Your task to perform on an android device: Search for Mexican restaurants on Maps Image 0: 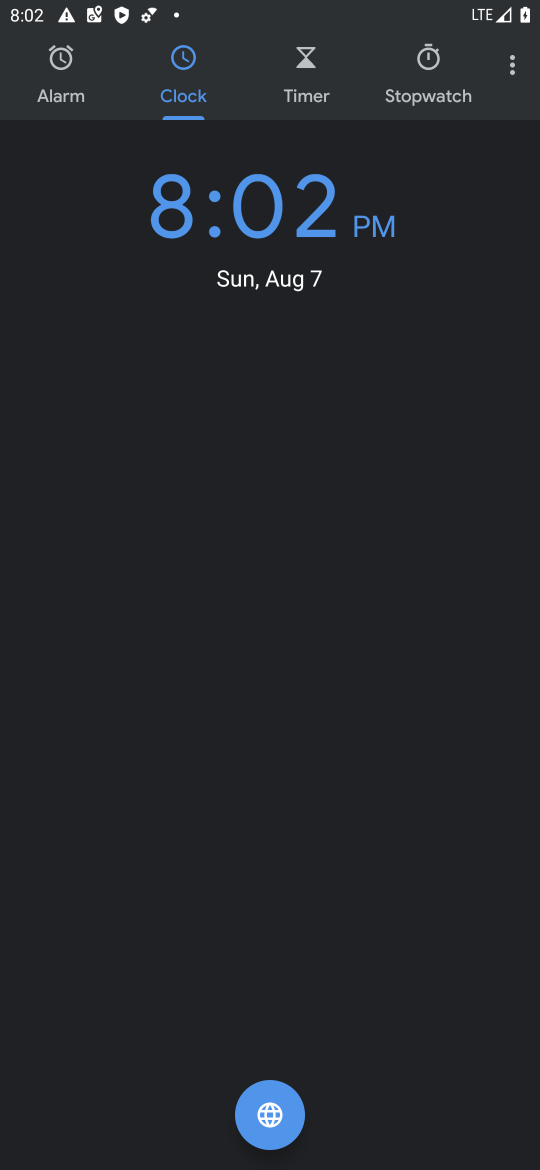
Step 0: press home button
Your task to perform on an android device: Search for Mexican restaurants on Maps Image 1: 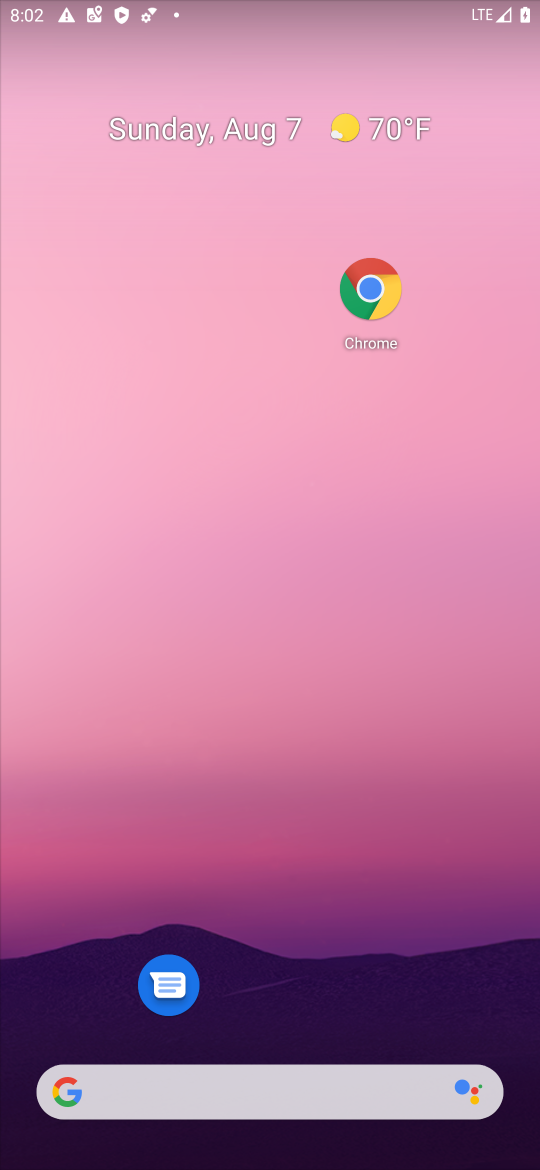
Step 1: drag from (181, 974) to (340, 227)
Your task to perform on an android device: Search for Mexican restaurants on Maps Image 2: 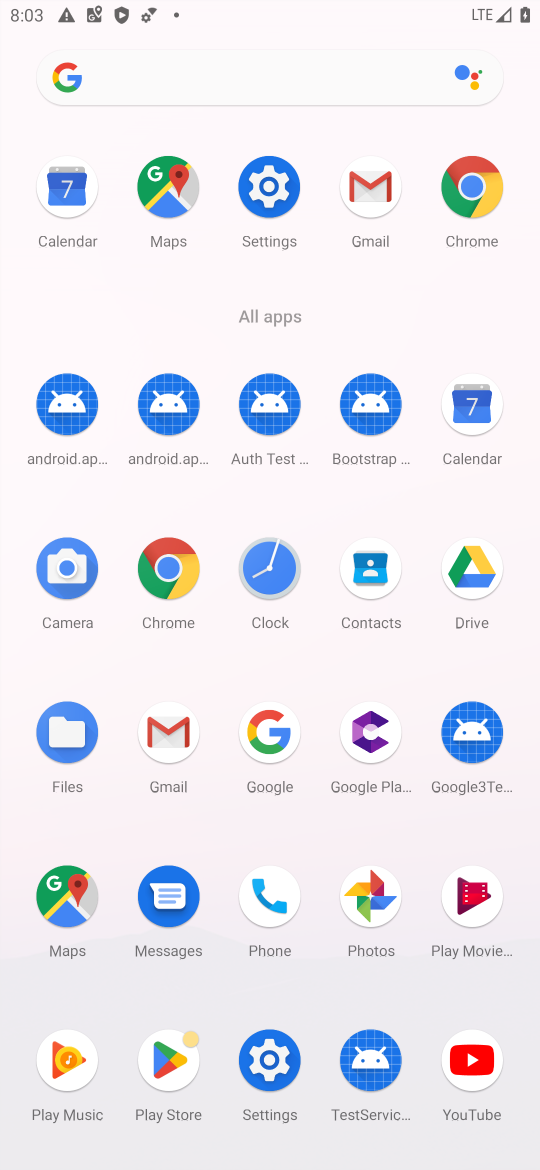
Step 2: click (168, 180)
Your task to perform on an android device: Search for Mexican restaurants on Maps Image 3: 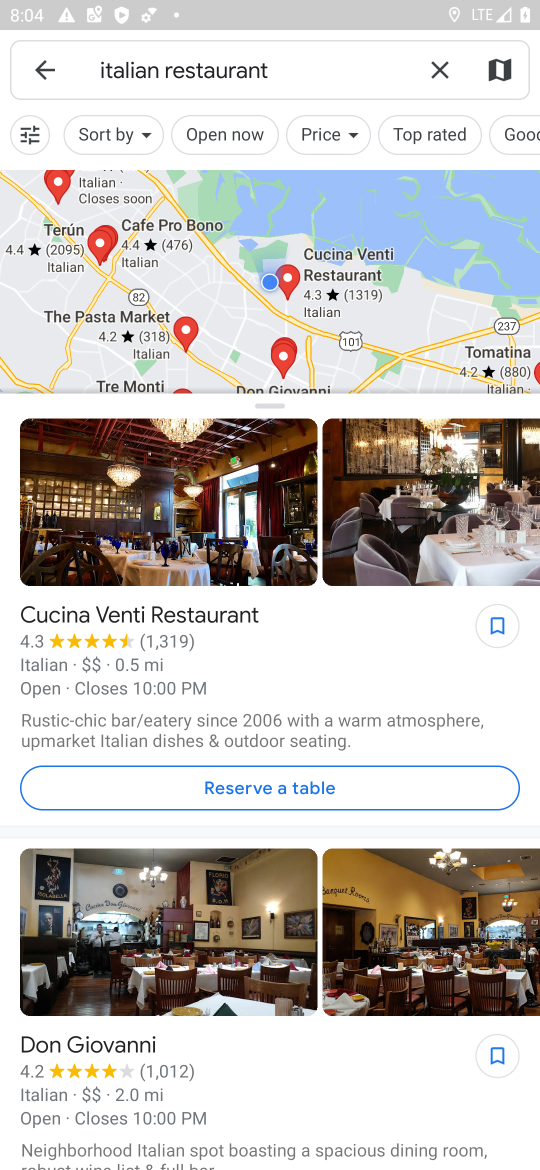
Step 3: click (459, 58)
Your task to perform on an android device: Search for Mexican restaurants on Maps Image 4: 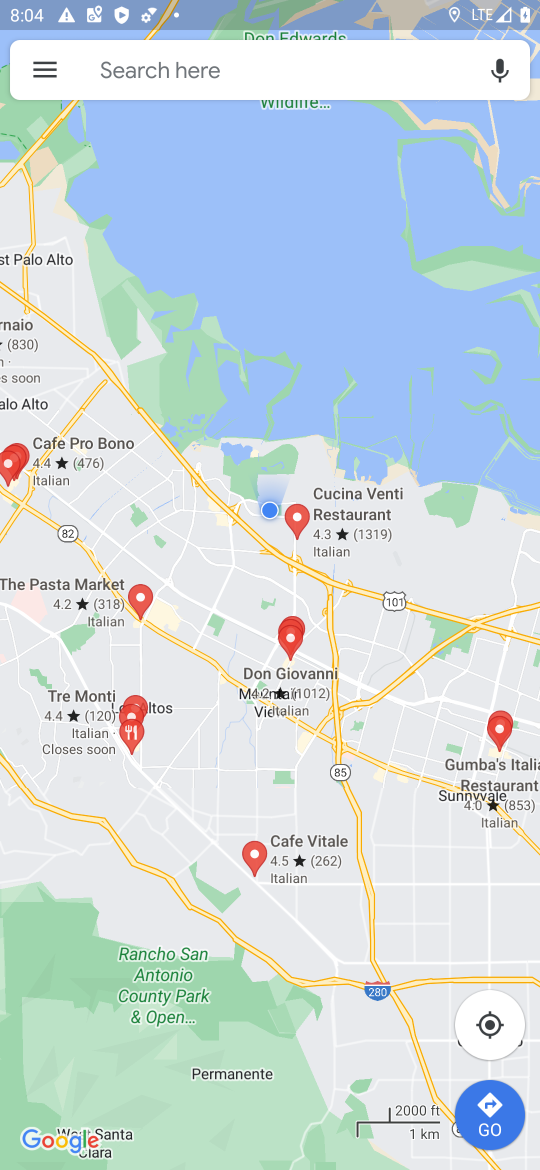
Step 4: click (357, 70)
Your task to perform on an android device: Search for Mexican restaurants on Maps Image 5: 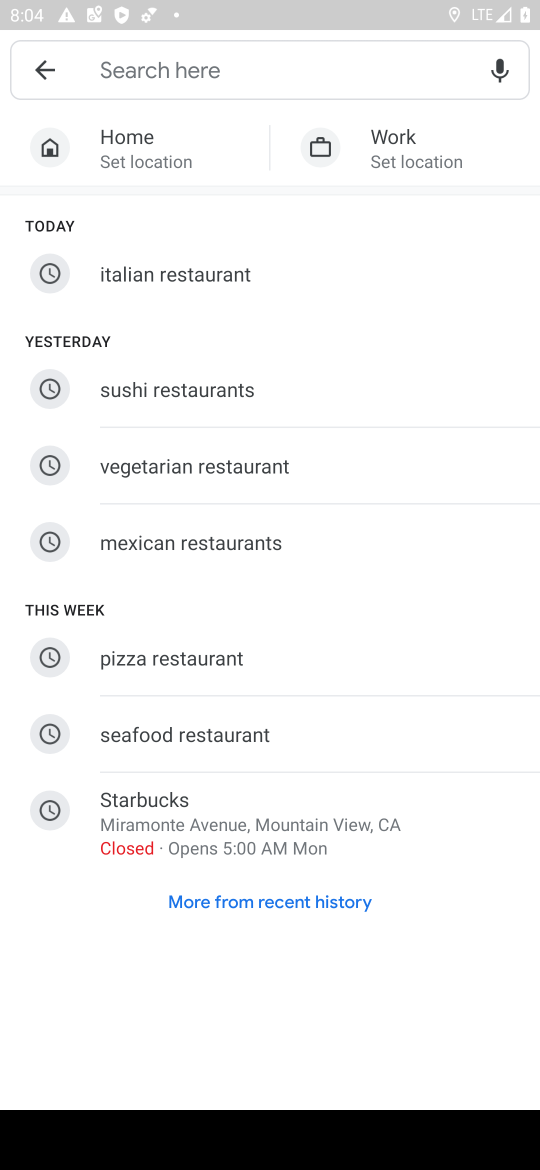
Step 5: click (228, 523)
Your task to perform on an android device: Search for Mexican restaurants on Maps Image 6: 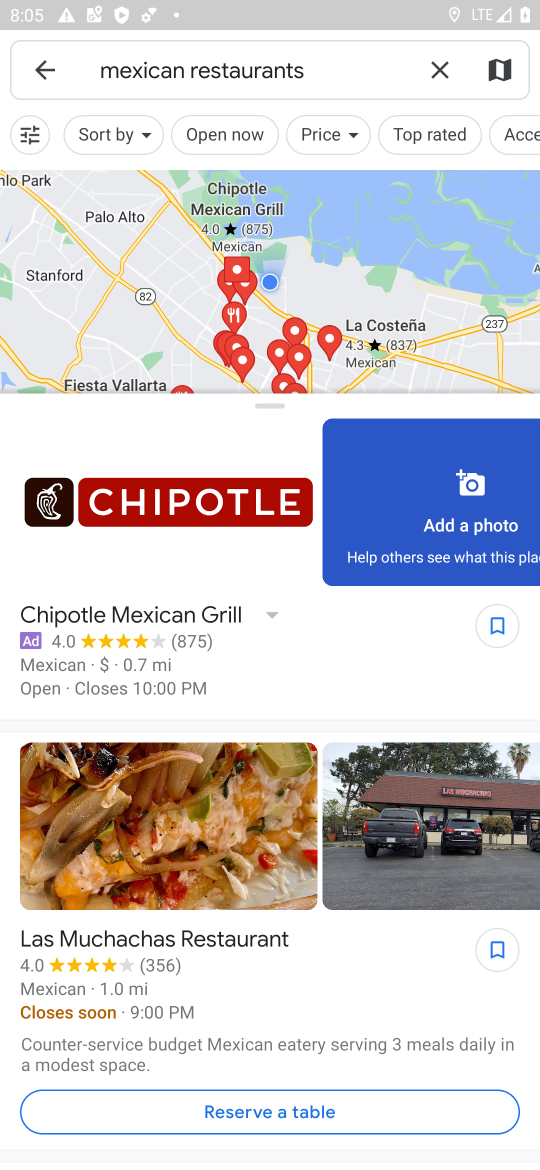
Step 6: task complete